Your task to perform on an android device: Go to Yahoo.com Image 0: 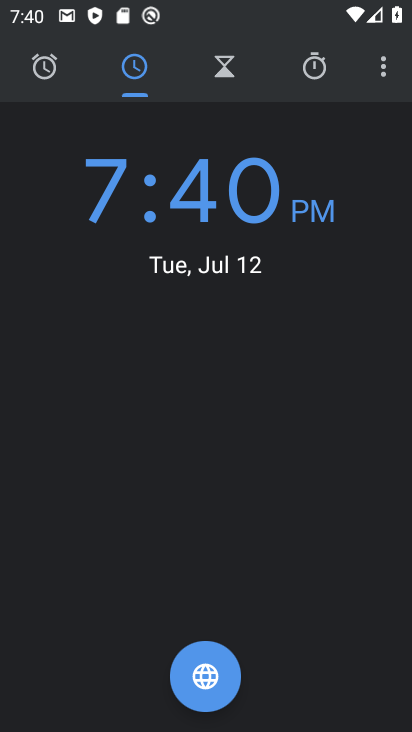
Step 0: press home button
Your task to perform on an android device: Go to Yahoo.com Image 1: 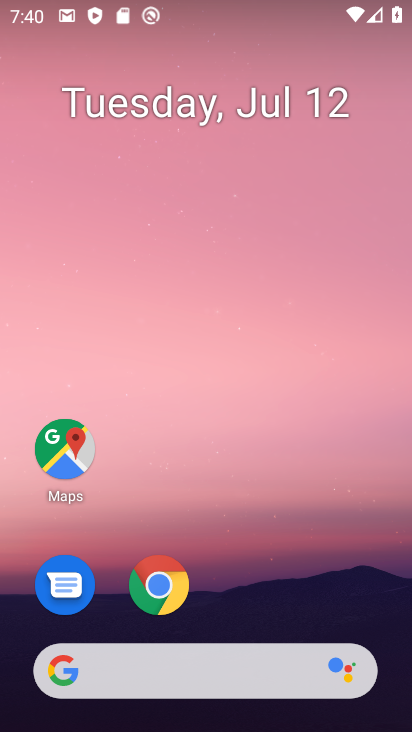
Step 1: click (190, 669)
Your task to perform on an android device: Go to Yahoo.com Image 2: 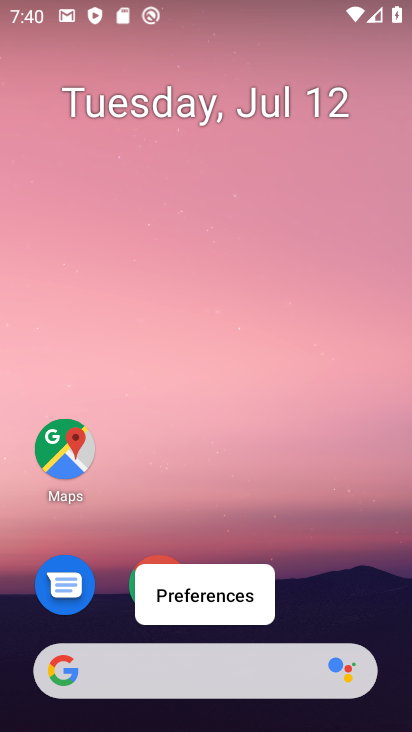
Step 2: click (156, 667)
Your task to perform on an android device: Go to Yahoo.com Image 3: 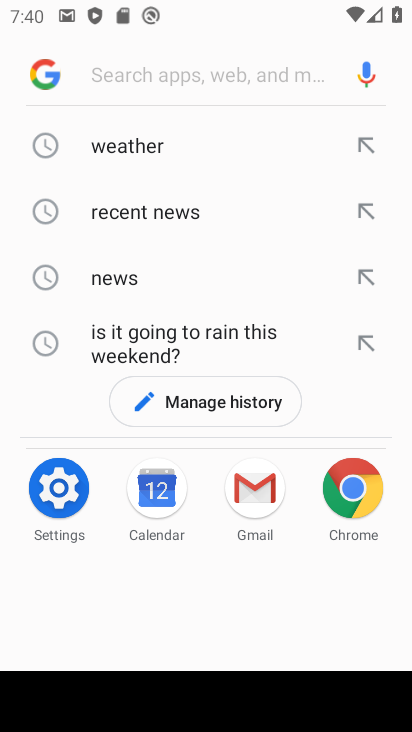
Step 3: type "yahoo.com"
Your task to perform on an android device: Go to Yahoo.com Image 4: 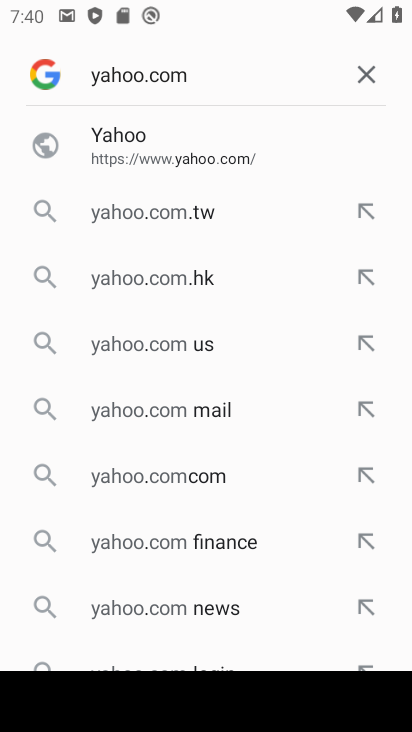
Step 4: click (108, 136)
Your task to perform on an android device: Go to Yahoo.com Image 5: 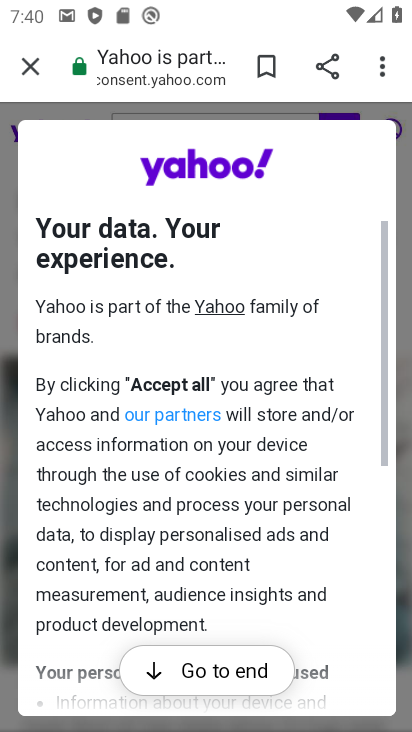
Step 5: click (227, 673)
Your task to perform on an android device: Go to Yahoo.com Image 6: 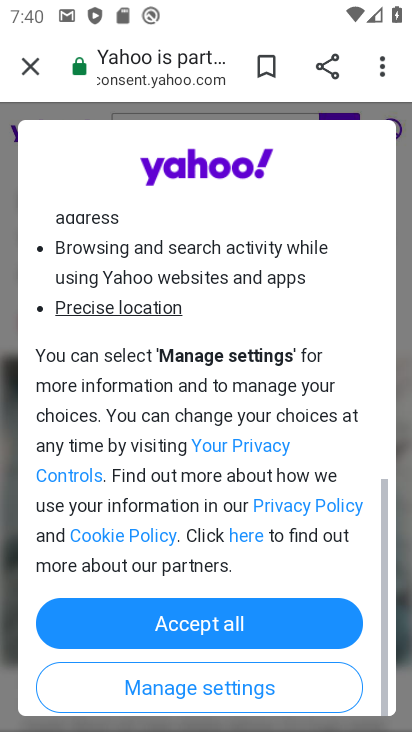
Step 6: click (242, 614)
Your task to perform on an android device: Go to Yahoo.com Image 7: 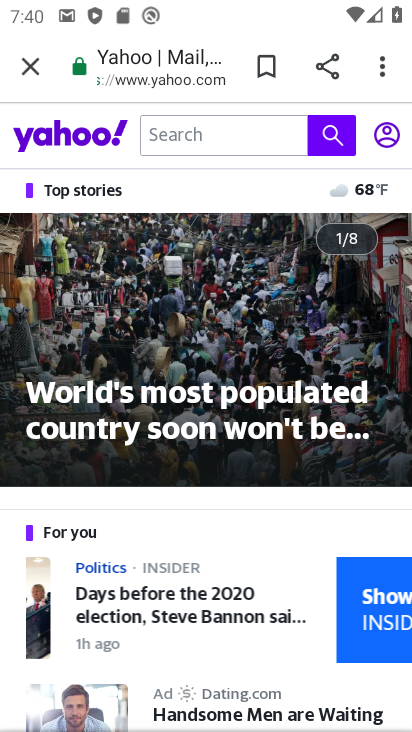
Step 7: task complete